Your task to perform on an android device: Open Chrome and go to the settings page Image 0: 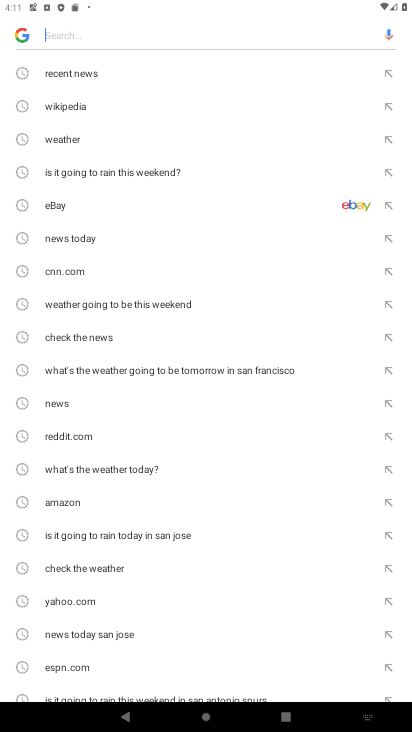
Step 0: press home button
Your task to perform on an android device: Open Chrome and go to the settings page Image 1: 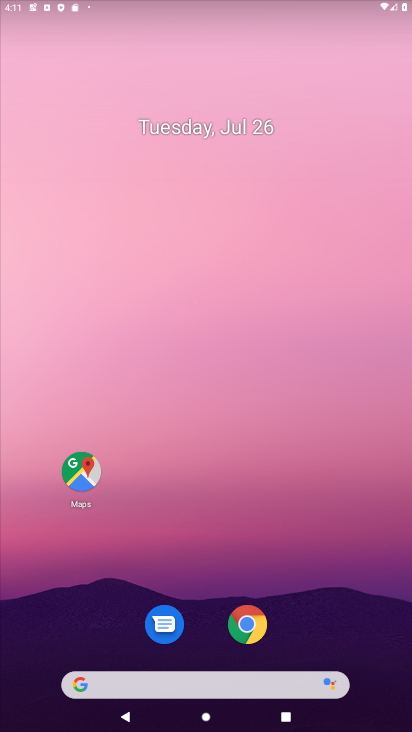
Step 1: drag from (284, 634) to (346, 15)
Your task to perform on an android device: Open Chrome and go to the settings page Image 2: 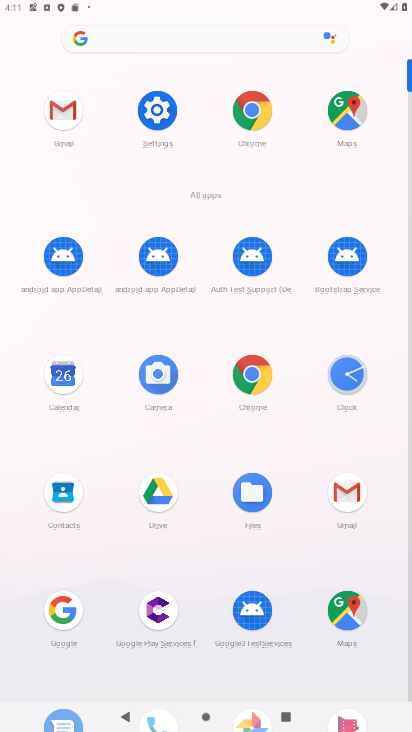
Step 2: click (260, 382)
Your task to perform on an android device: Open Chrome and go to the settings page Image 3: 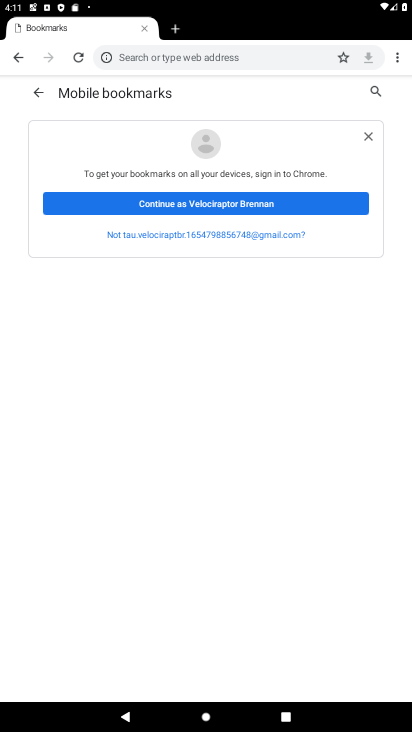
Step 3: click (399, 54)
Your task to perform on an android device: Open Chrome and go to the settings page Image 4: 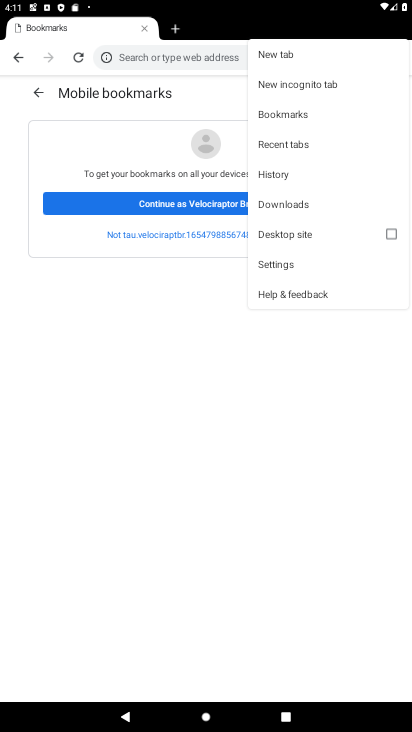
Step 4: click (294, 265)
Your task to perform on an android device: Open Chrome and go to the settings page Image 5: 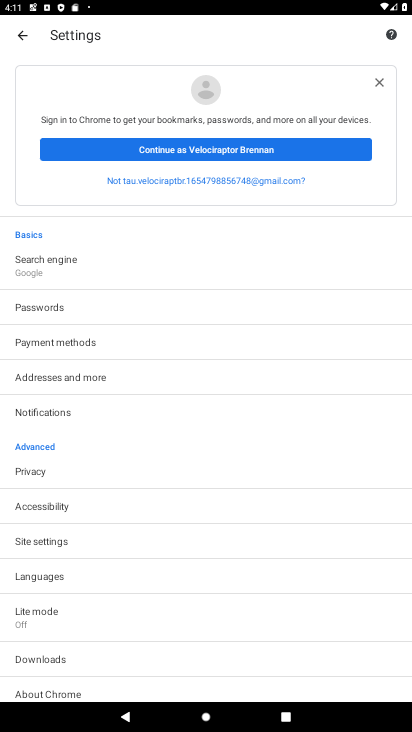
Step 5: task complete